Your task to perform on an android device: Open Wikipedia Image 0: 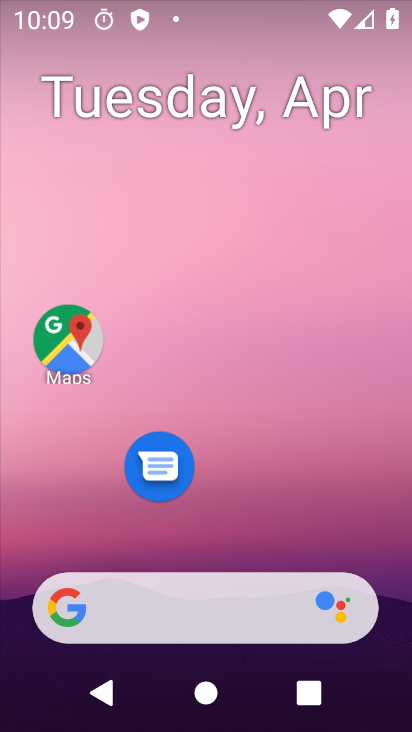
Step 0: drag from (339, 521) to (295, 120)
Your task to perform on an android device: Open Wikipedia Image 1: 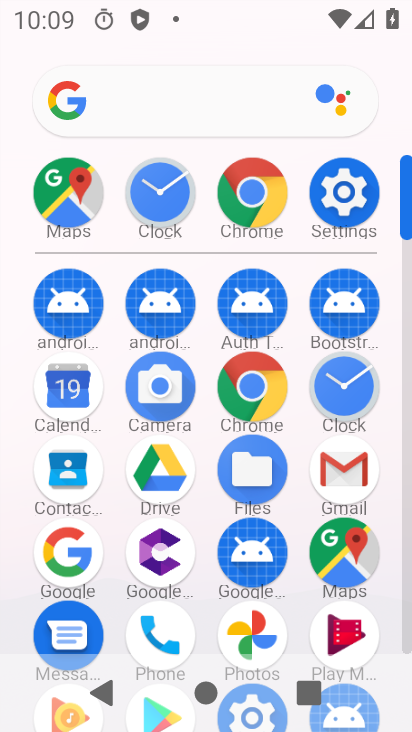
Step 1: click (269, 411)
Your task to perform on an android device: Open Wikipedia Image 2: 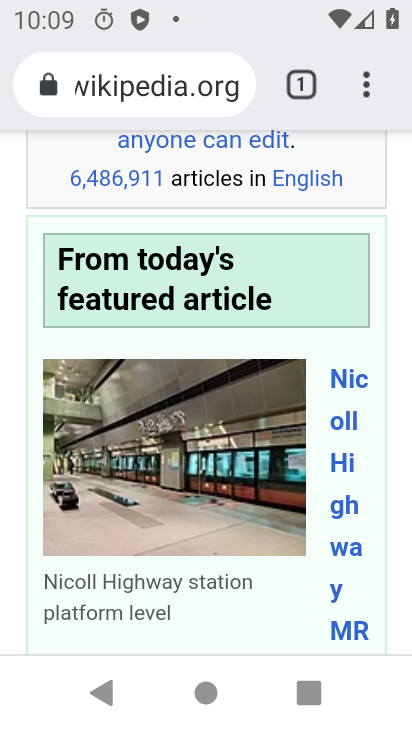
Step 2: task complete